Your task to perform on an android device: turn on airplane mode Image 0: 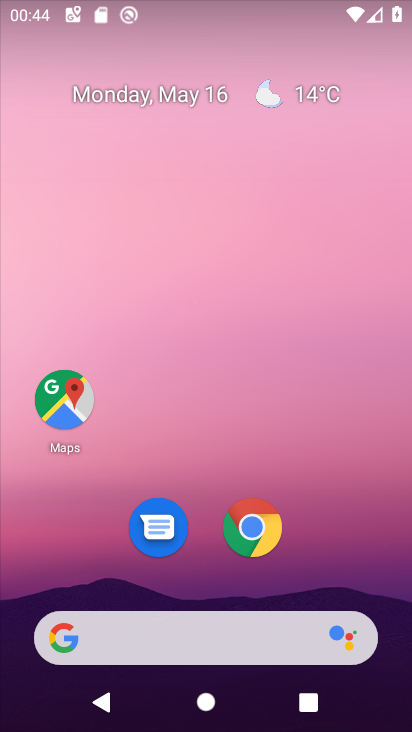
Step 0: drag from (208, 576) to (256, 85)
Your task to perform on an android device: turn on airplane mode Image 1: 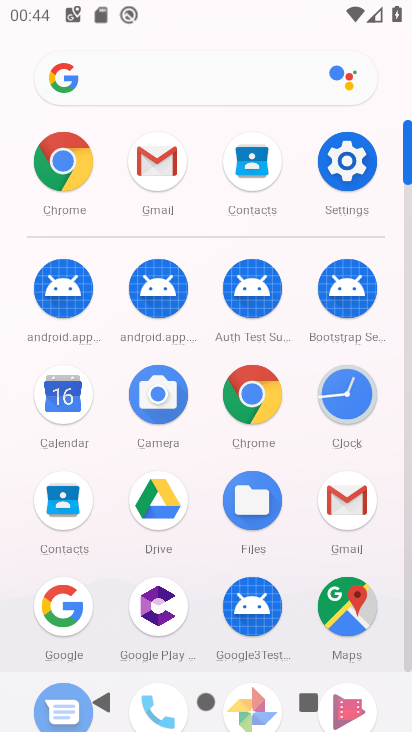
Step 1: click (356, 172)
Your task to perform on an android device: turn on airplane mode Image 2: 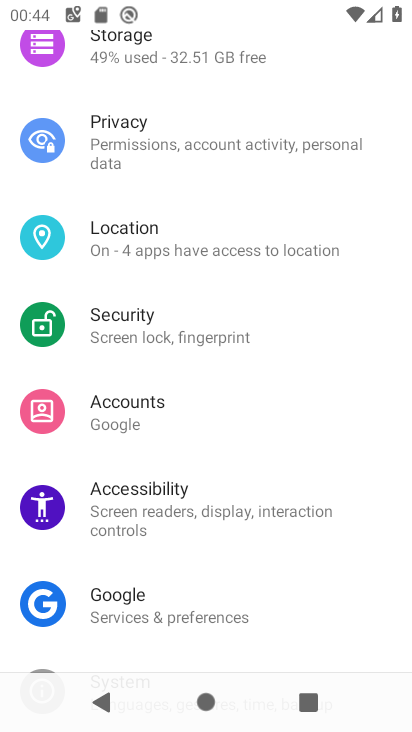
Step 2: drag from (191, 227) to (195, 550)
Your task to perform on an android device: turn on airplane mode Image 3: 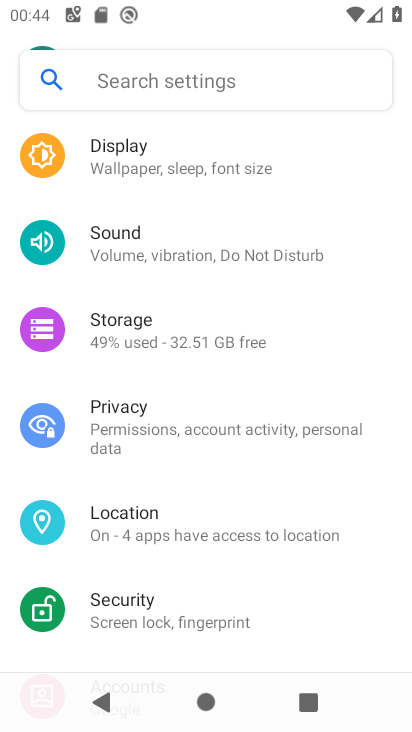
Step 3: drag from (200, 178) to (206, 460)
Your task to perform on an android device: turn on airplane mode Image 4: 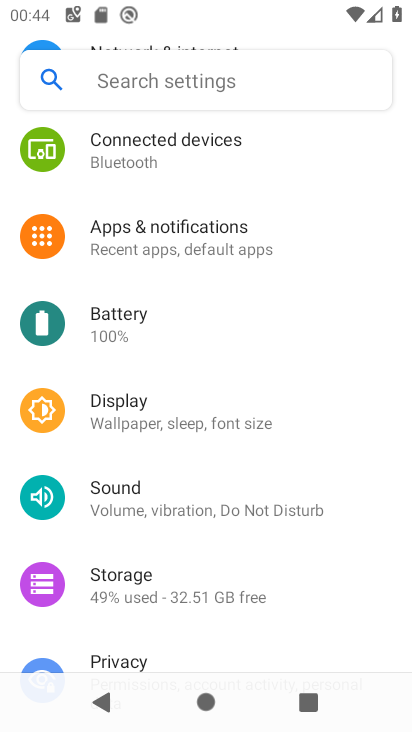
Step 4: drag from (201, 228) to (221, 570)
Your task to perform on an android device: turn on airplane mode Image 5: 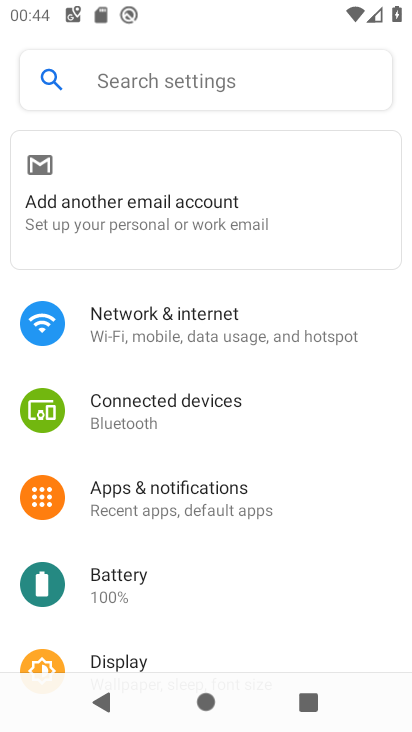
Step 5: click (194, 324)
Your task to perform on an android device: turn on airplane mode Image 6: 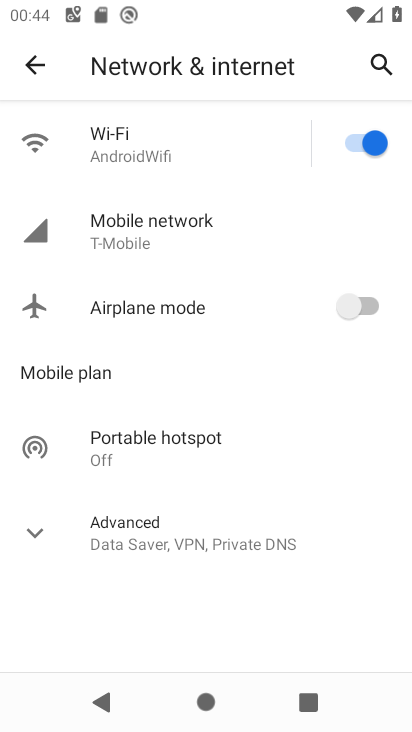
Step 6: click (374, 305)
Your task to perform on an android device: turn on airplane mode Image 7: 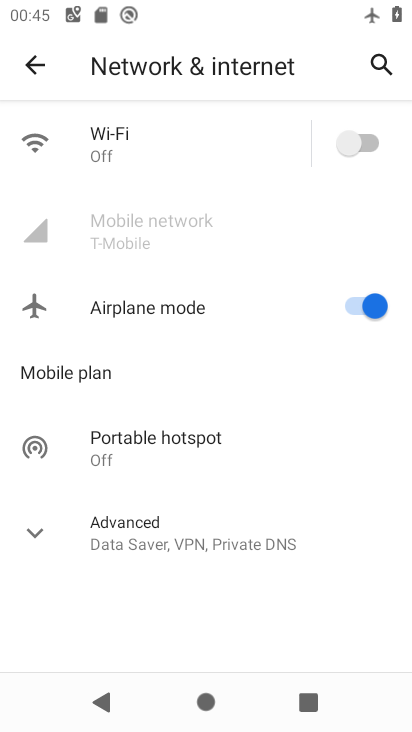
Step 7: task complete